Your task to perform on an android device: change alarm snooze length Image 0: 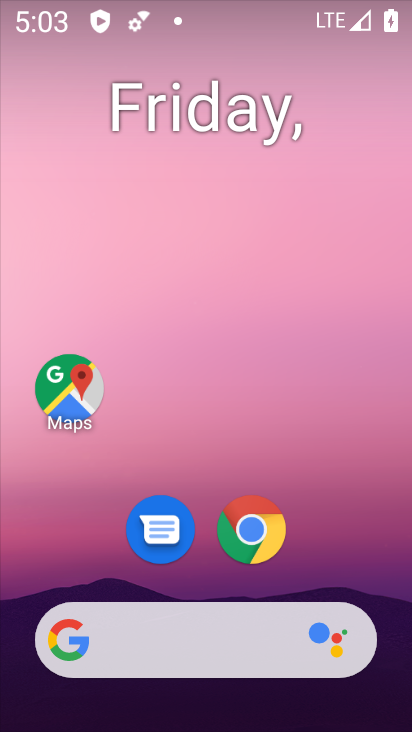
Step 0: drag from (351, 559) to (250, 75)
Your task to perform on an android device: change alarm snooze length Image 1: 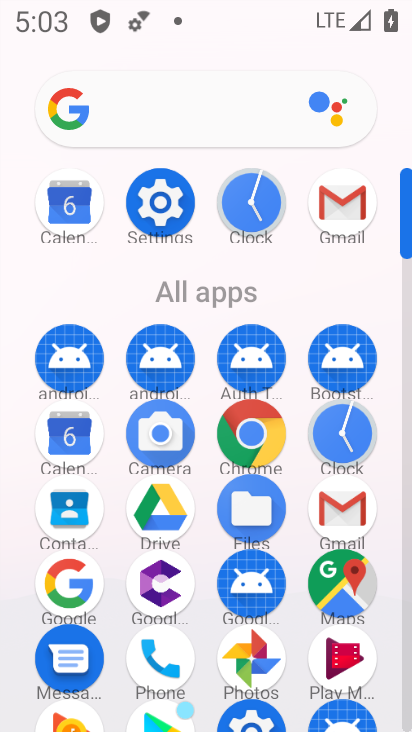
Step 1: click (344, 423)
Your task to perform on an android device: change alarm snooze length Image 2: 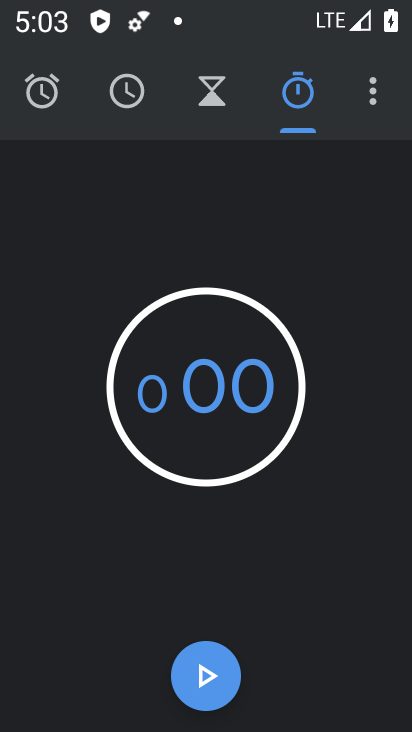
Step 2: click (375, 92)
Your task to perform on an android device: change alarm snooze length Image 3: 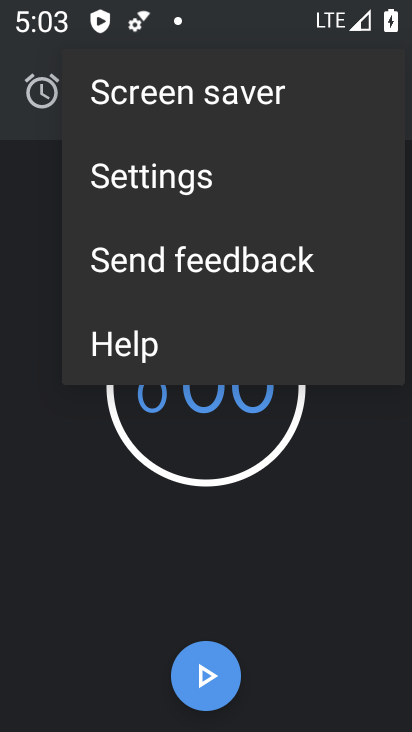
Step 3: click (153, 192)
Your task to perform on an android device: change alarm snooze length Image 4: 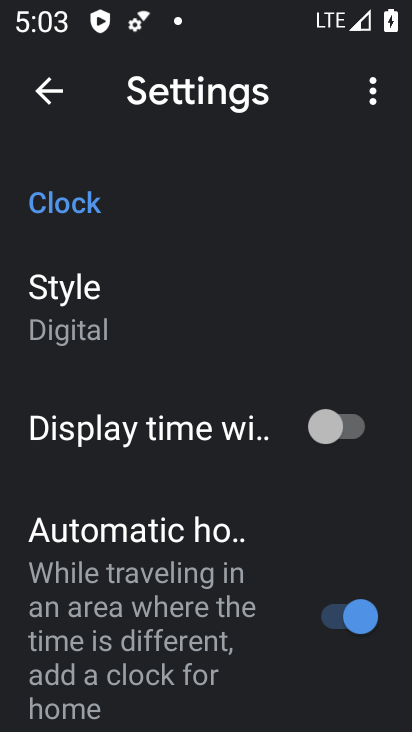
Step 4: drag from (175, 607) to (178, 177)
Your task to perform on an android device: change alarm snooze length Image 5: 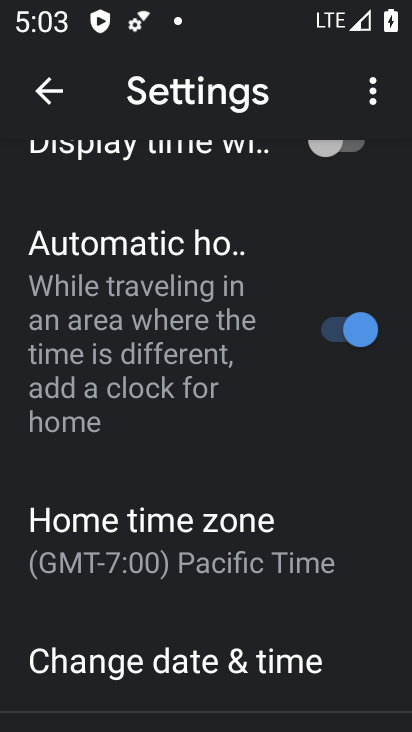
Step 5: drag from (139, 551) to (206, 237)
Your task to perform on an android device: change alarm snooze length Image 6: 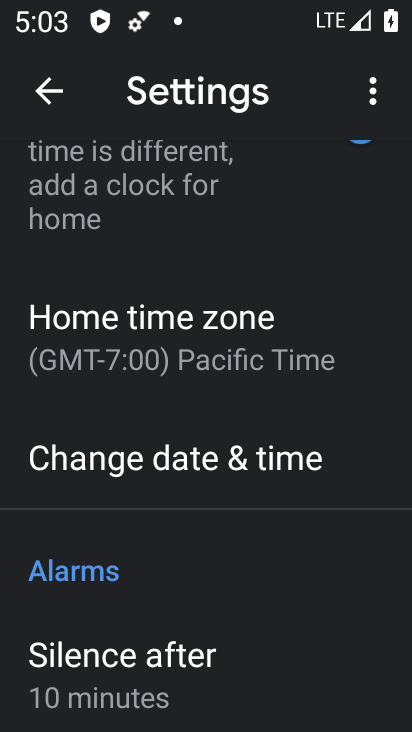
Step 6: drag from (226, 650) to (198, 190)
Your task to perform on an android device: change alarm snooze length Image 7: 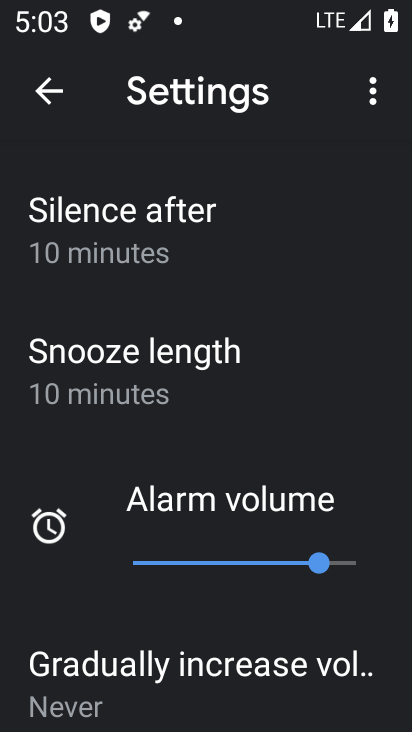
Step 7: click (165, 407)
Your task to perform on an android device: change alarm snooze length Image 8: 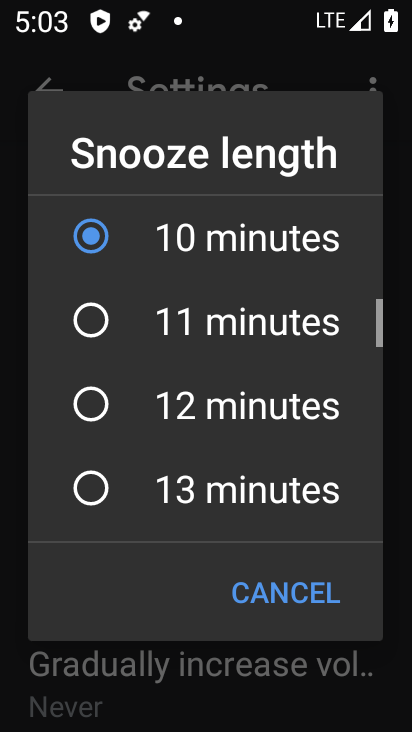
Step 8: click (217, 334)
Your task to perform on an android device: change alarm snooze length Image 9: 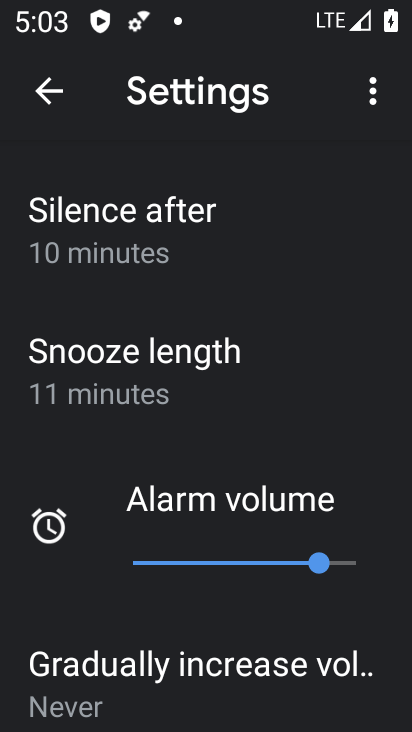
Step 9: task complete